Your task to perform on an android device: Open my contact list Image 0: 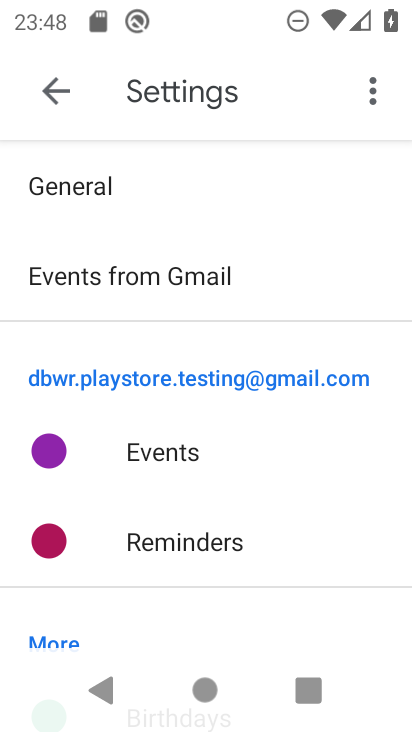
Step 0: press home button
Your task to perform on an android device: Open my contact list Image 1: 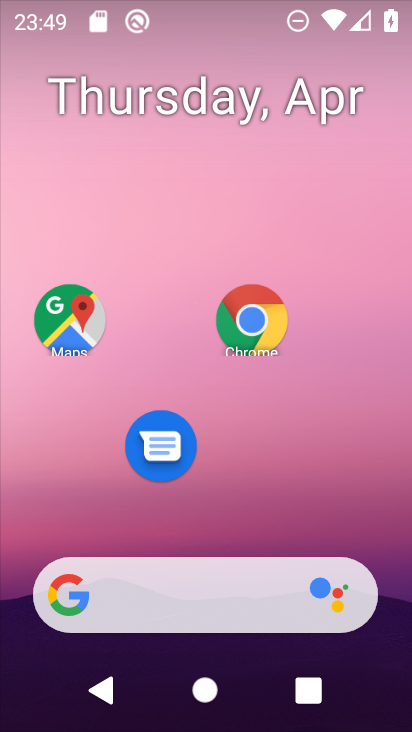
Step 1: drag from (192, 535) to (236, 326)
Your task to perform on an android device: Open my contact list Image 2: 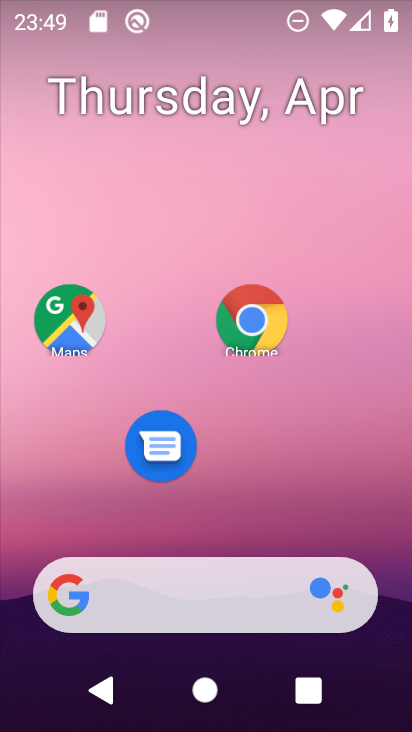
Step 2: drag from (217, 519) to (210, 110)
Your task to perform on an android device: Open my contact list Image 3: 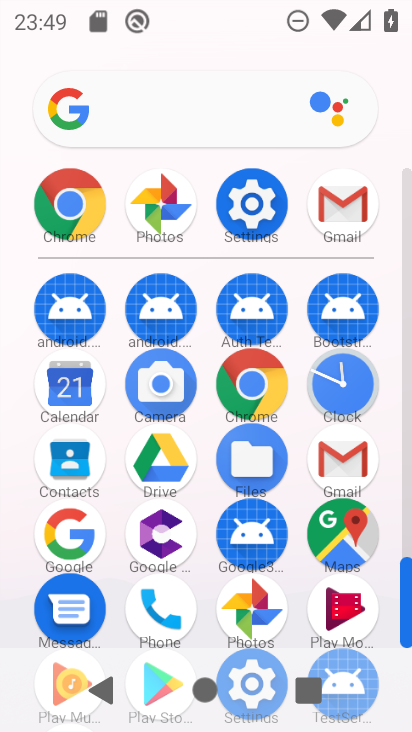
Step 3: click (47, 432)
Your task to perform on an android device: Open my contact list Image 4: 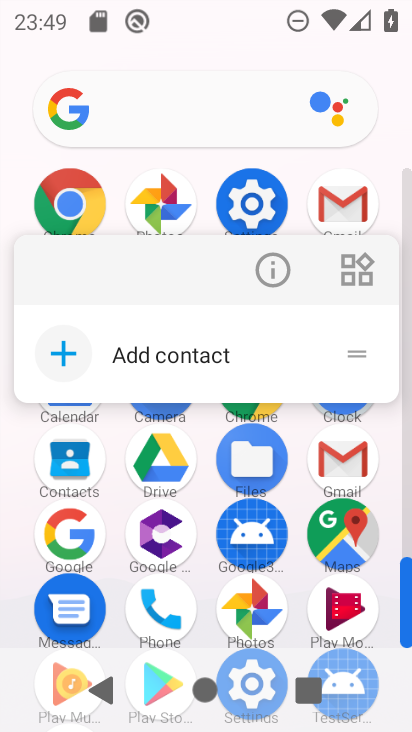
Step 4: click (290, 270)
Your task to perform on an android device: Open my contact list Image 5: 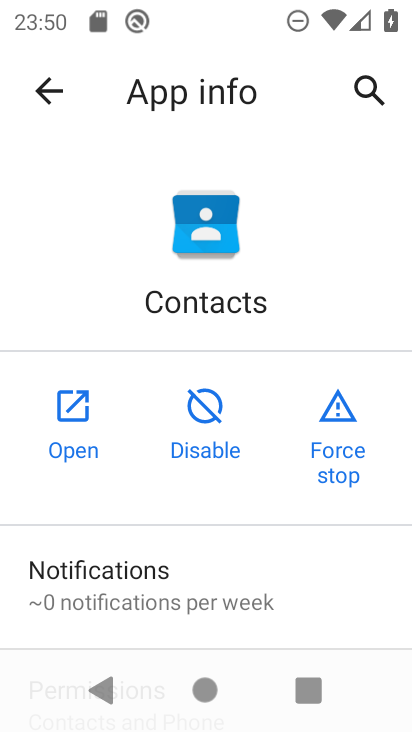
Step 5: click (64, 424)
Your task to perform on an android device: Open my contact list Image 6: 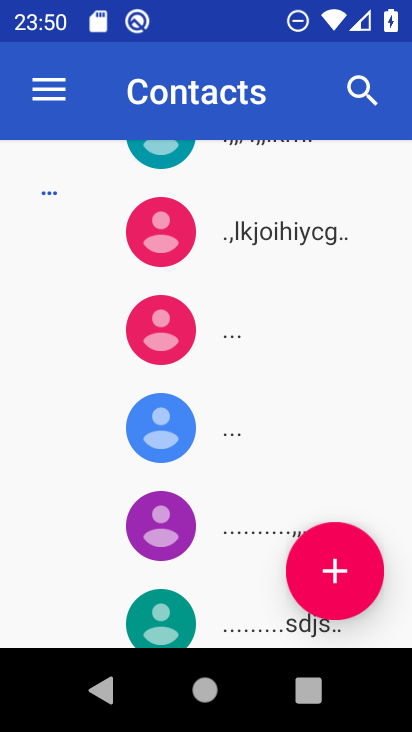
Step 6: task complete